Your task to perform on an android device: toggle notifications settings in the gmail app Image 0: 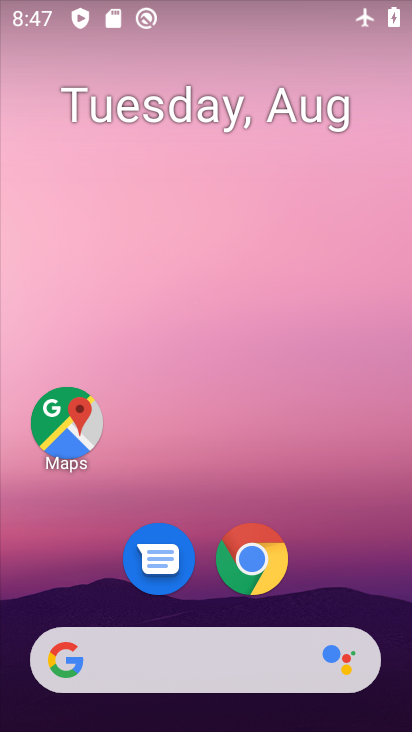
Step 0: drag from (331, 569) to (291, 51)
Your task to perform on an android device: toggle notifications settings in the gmail app Image 1: 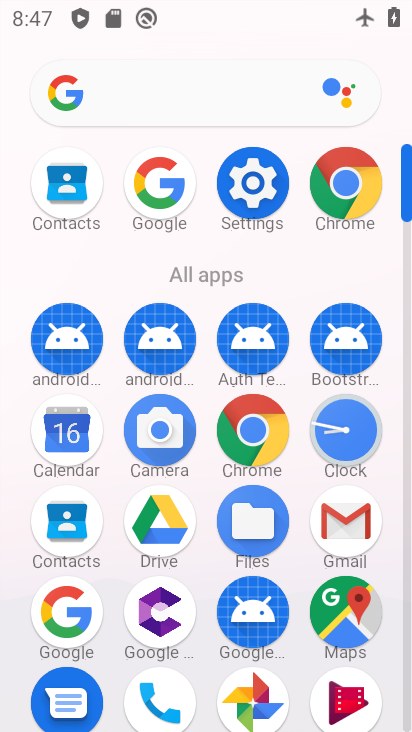
Step 1: click (334, 527)
Your task to perform on an android device: toggle notifications settings in the gmail app Image 2: 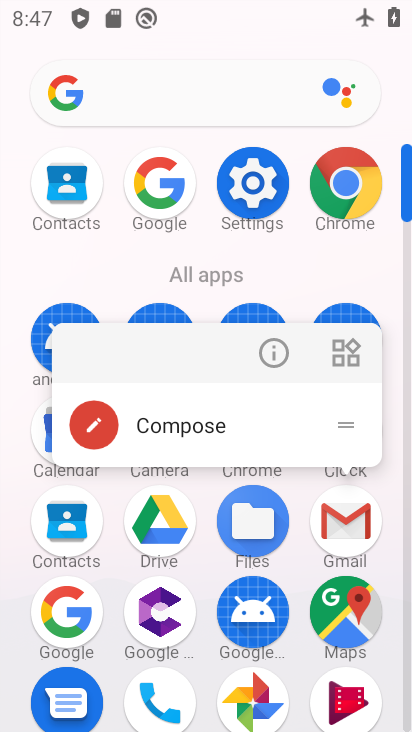
Step 2: click (268, 349)
Your task to perform on an android device: toggle notifications settings in the gmail app Image 3: 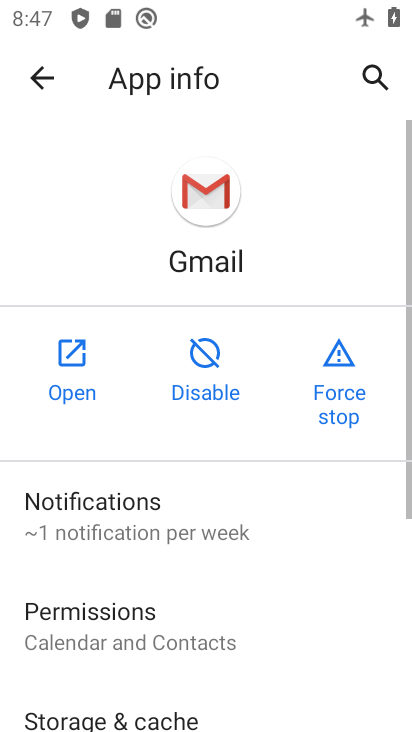
Step 3: click (128, 500)
Your task to perform on an android device: toggle notifications settings in the gmail app Image 4: 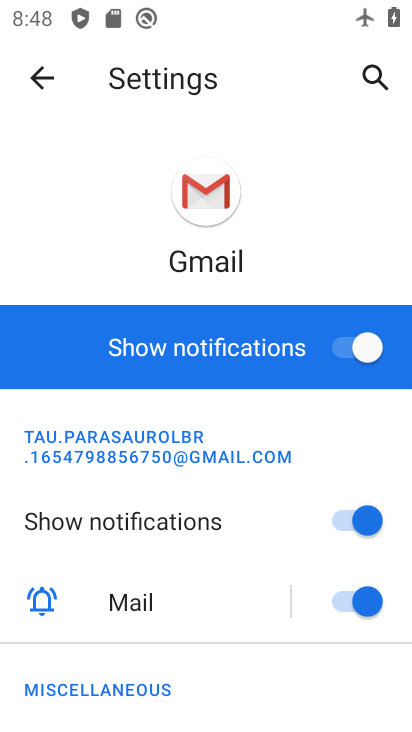
Step 4: click (332, 338)
Your task to perform on an android device: toggle notifications settings in the gmail app Image 5: 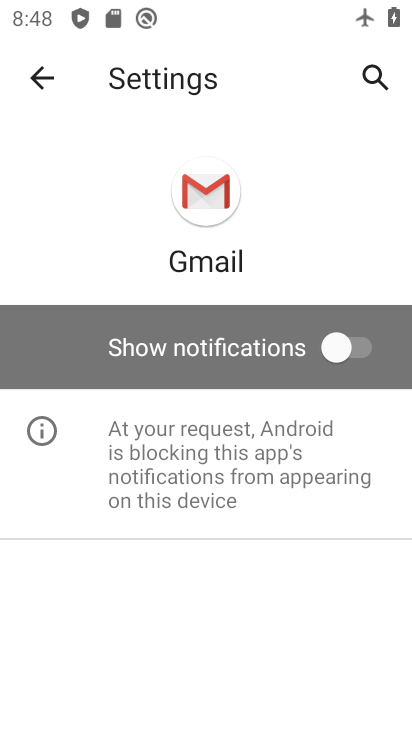
Step 5: task complete